Your task to perform on an android device: Open eBay Image 0: 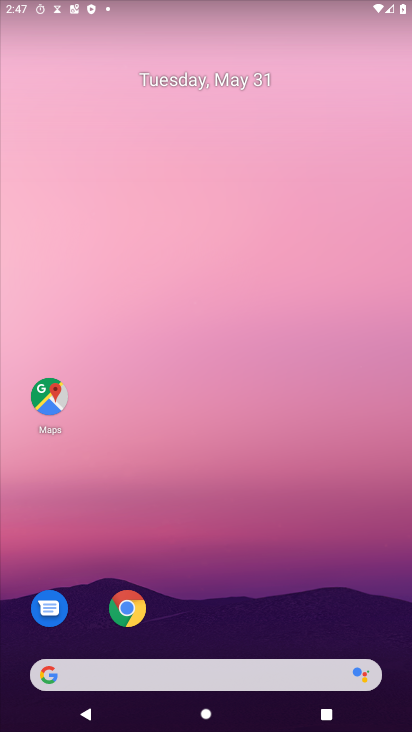
Step 0: drag from (185, 599) to (309, 20)
Your task to perform on an android device: Open eBay Image 1: 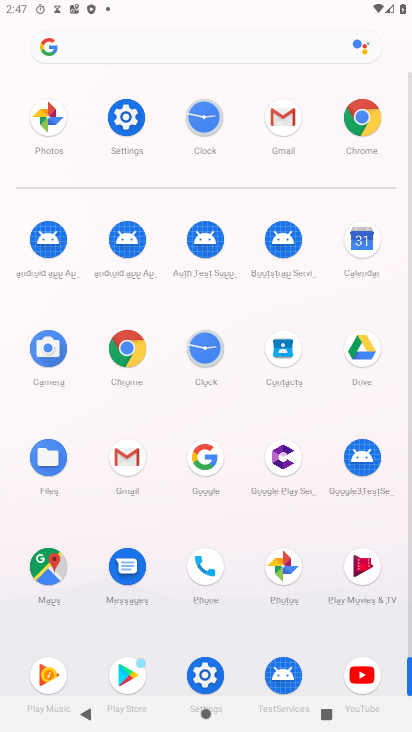
Step 1: click (106, 351)
Your task to perform on an android device: Open eBay Image 2: 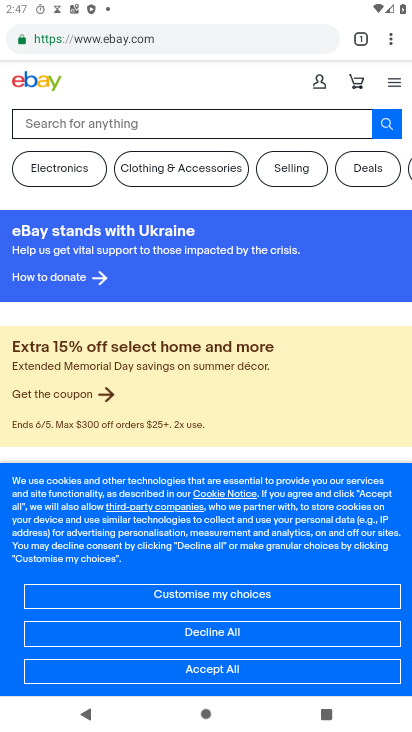
Step 2: click (22, 84)
Your task to perform on an android device: Open eBay Image 3: 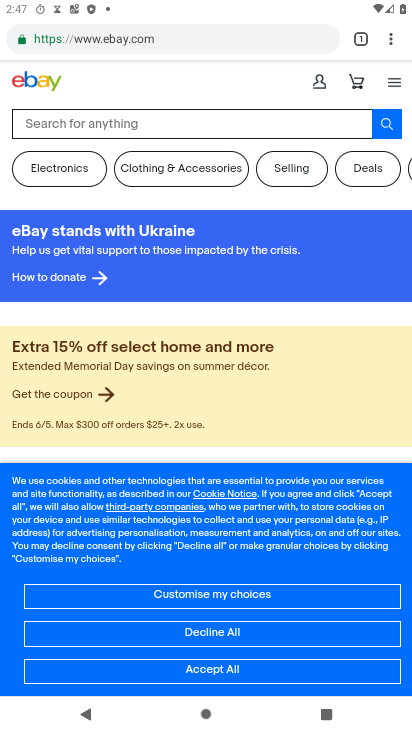
Step 3: task complete